Your task to perform on an android device: turn off location history Image 0: 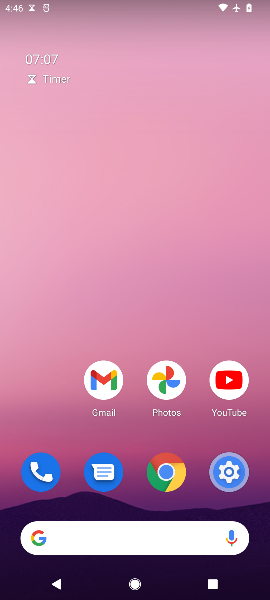
Step 0: drag from (154, 508) to (203, 216)
Your task to perform on an android device: turn off location history Image 1: 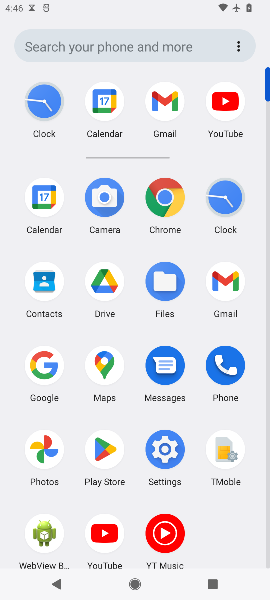
Step 1: click (169, 455)
Your task to perform on an android device: turn off location history Image 2: 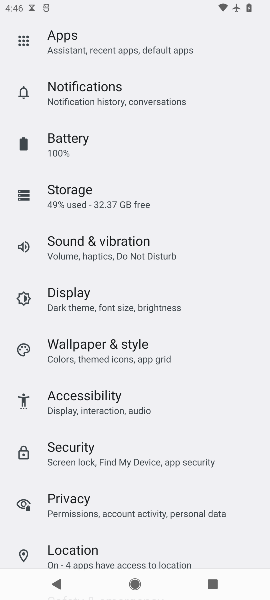
Step 2: click (79, 550)
Your task to perform on an android device: turn off location history Image 3: 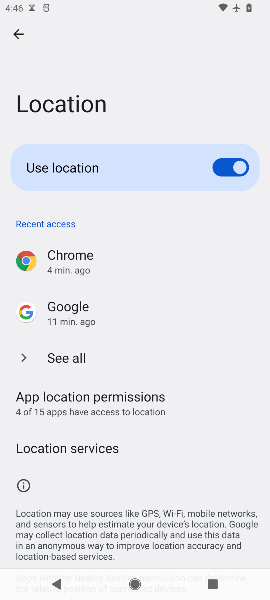
Step 3: click (65, 447)
Your task to perform on an android device: turn off location history Image 4: 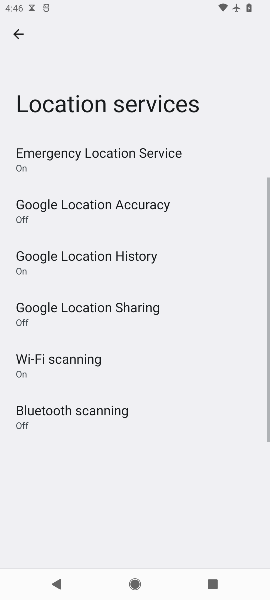
Step 4: click (108, 261)
Your task to perform on an android device: turn off location history Image 5: 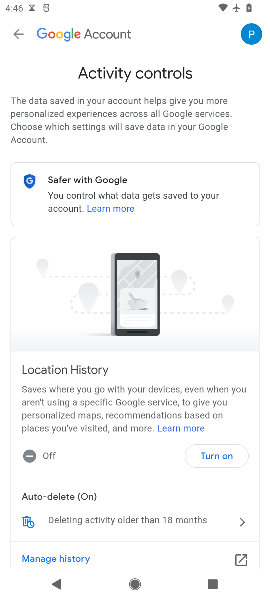
Step 5: task complete